Your task to perform on an android device: change the clock display to show seconds Image 0: 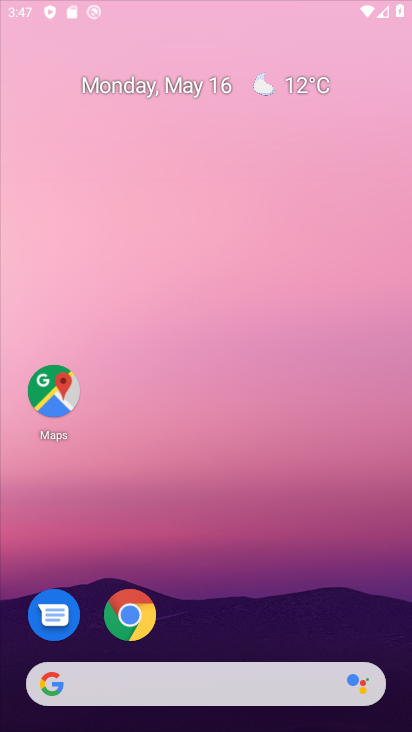
Step 0: drag from (365, 600) to (201, 33)
Your task to perform on an android device: change the clock display to show seconds Image 1: 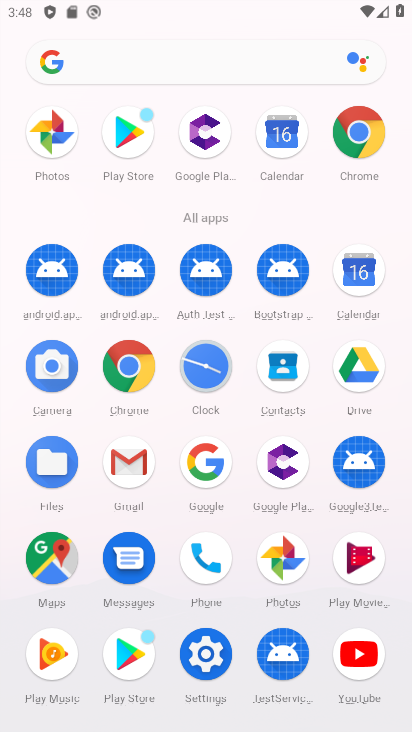
Step 1: click (202, 369)
Your task to perform on an android device: change the clock display to show seconds Image 2: 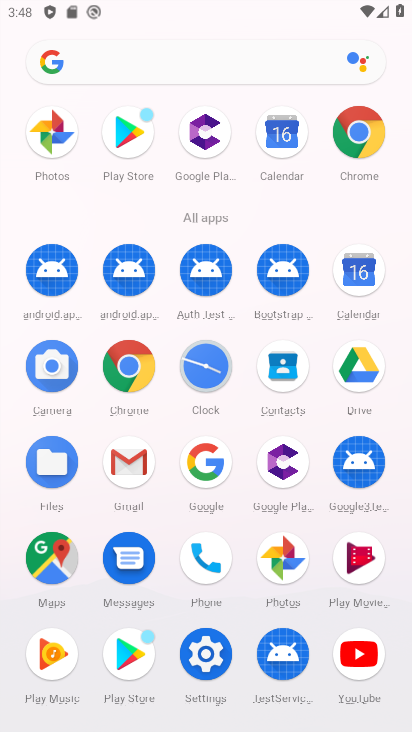
Step 2: click (201, 370)
Your task to perform on an android device: change the clock display to show seconds Image 3: 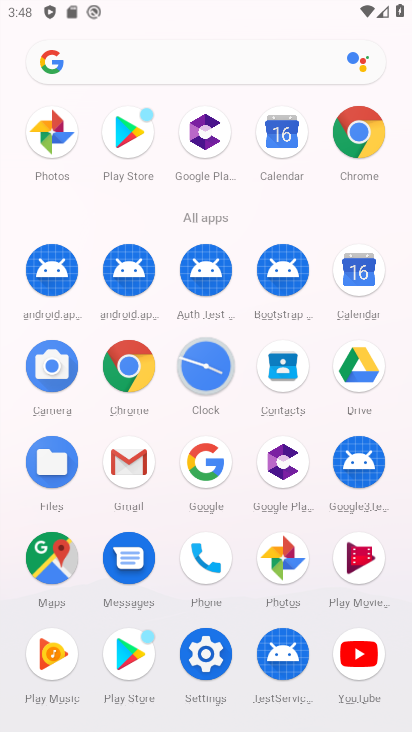
Step 3: click (201, 370)
Your task to perform on an android device: change the clock display to show seconds Image 4: 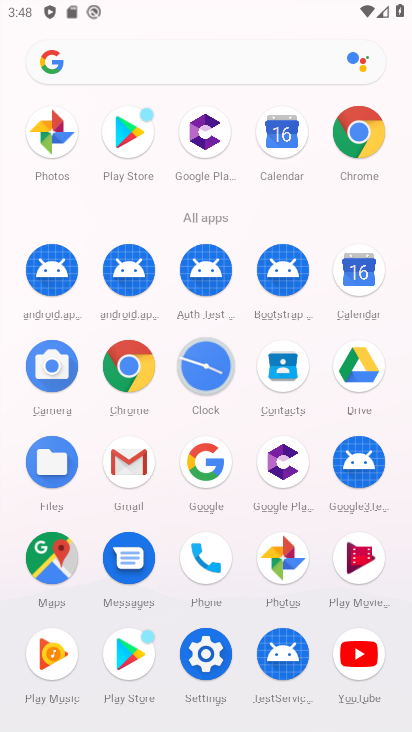
Step 4: click (201, 370)
Your task to perform on an android device: change the clock display to show seconds Image 5: 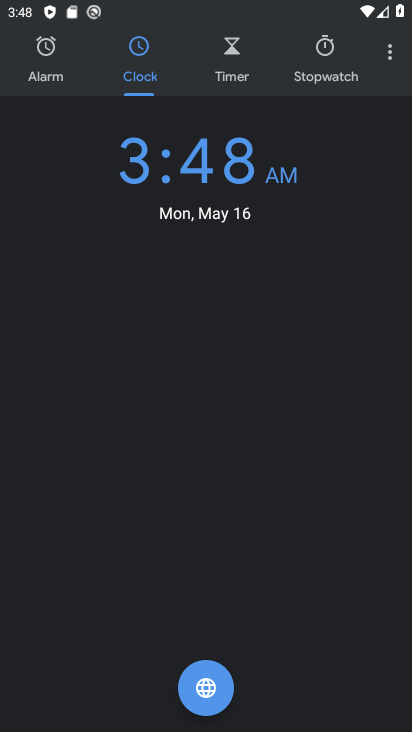
Step 5: click (393, 53)
Your task to perform on an android device: change the clock display to show seconds Image 6: 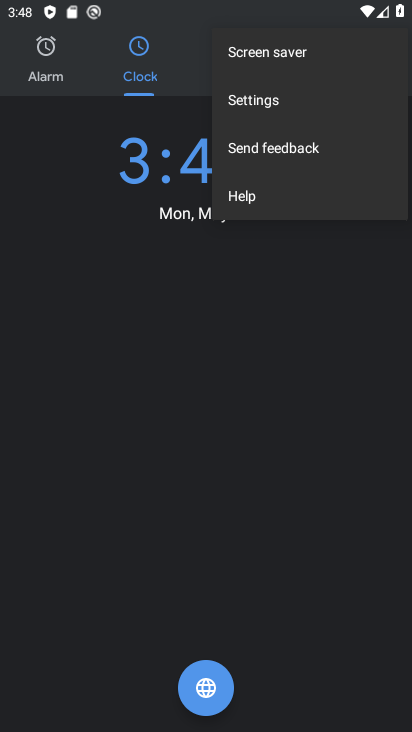
Step 6: click (256, 101)
Your task to perform on an android device: change the clock display to show seconds Image 7: 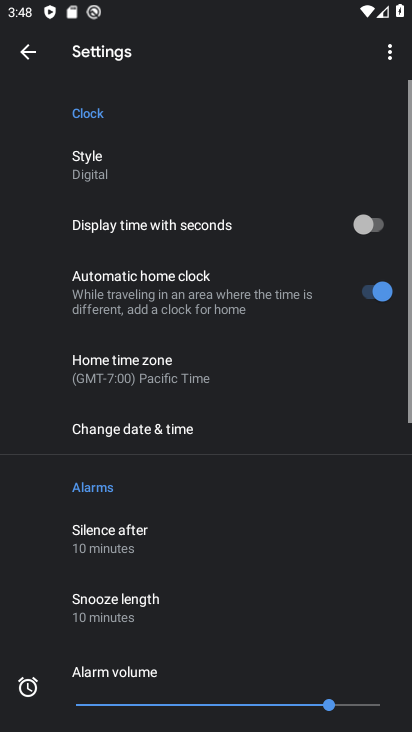
Step 7: drag from (182, 450) to (134, 7)
Your task to perform on an android device: change the clock display to show seconds Image 8: 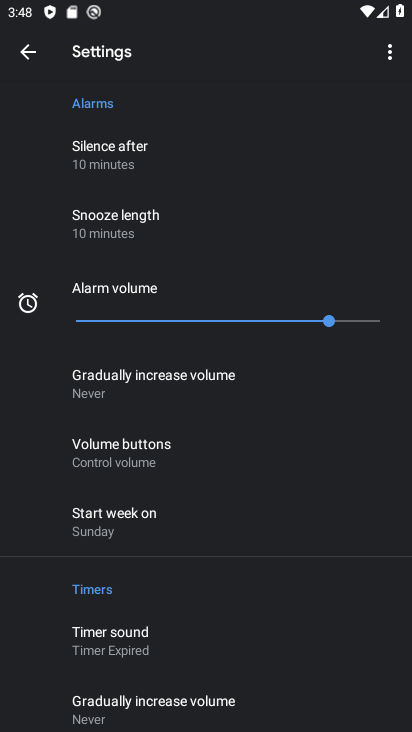
Step 8: drag from (164, 181) to (244, 660)
Your task to perform on an android device: change the clock display to show seconds Image 9: 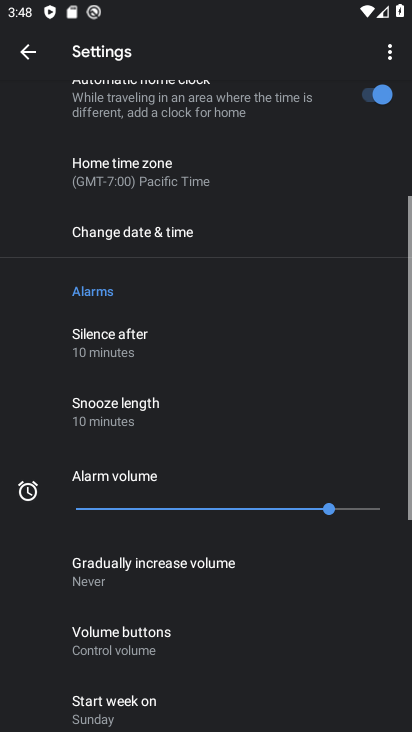
Step 9: drag from (196, 319) to (278, 634)
Your task to perform on an android device: change the clock display to show seconds Image 10: 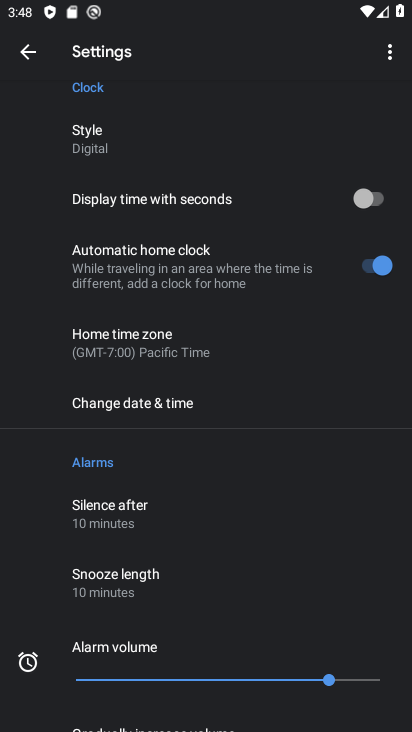
Step 10: click (366, 203)
Your task to perform on an android device: change the clock display to show seconds Image 11: 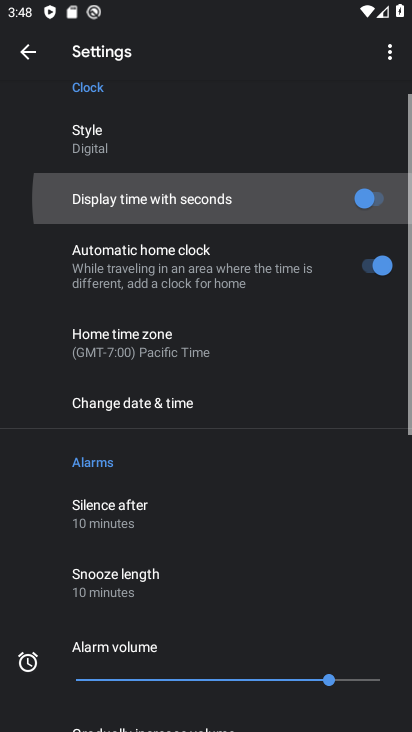
Step 11: click (366, 203)
Your task to perform on an android device: change the clock display to show seconds Image 12: 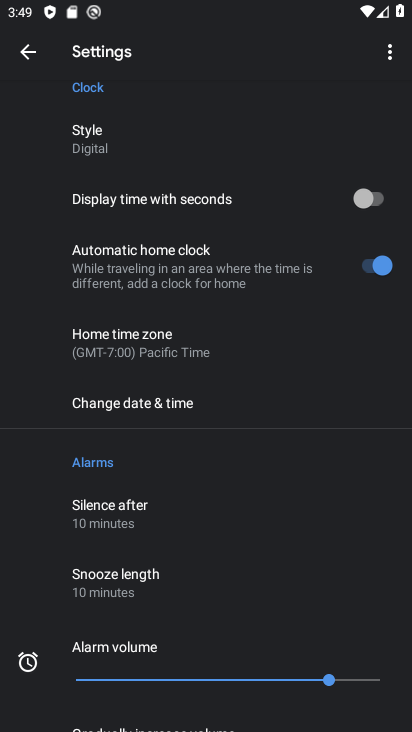
Step 12: click (365, 200)
Your task to perform on an android device: change the clock display to show seconds Image 13: 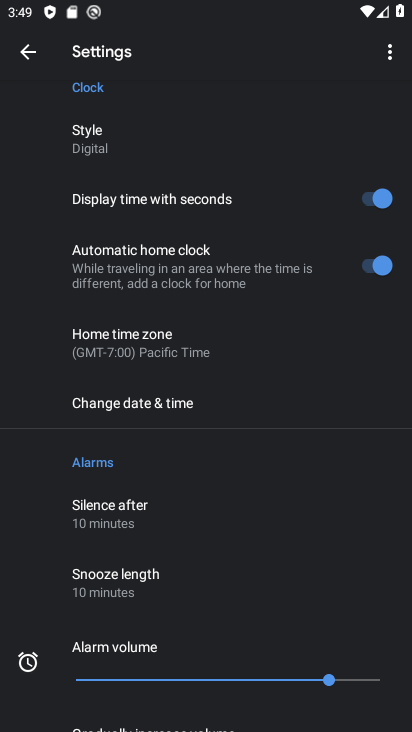
Step 13: task complete